Your task to perform on an android device: Play the last video I watched on Youtube Image 0: 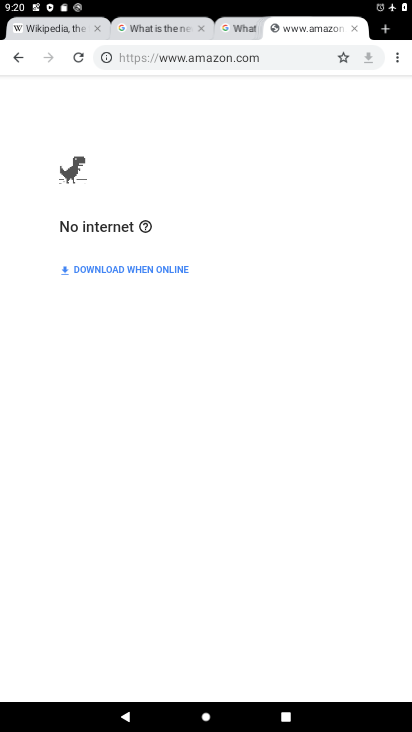
Step 0: press home button
Your task to perform on an android device: Play the last video I watched on Youtube Image 1: 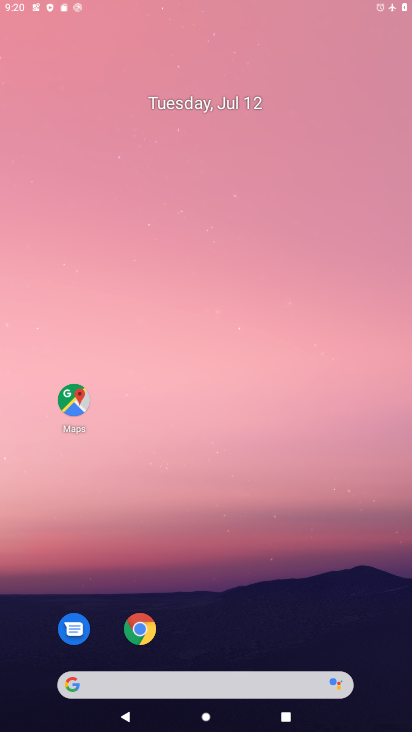
Step 1: drag from (279, 662) to (250, 269)
Your task to perform on an android device: Play the last video I watched on Youtube Image 2: 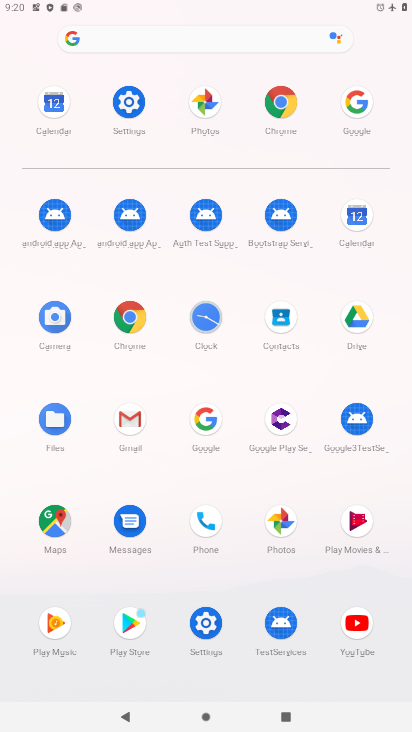
Step 2: click (361, 633)
Your task to perform on an android device: Play the last video I watched on Youtube Image 3: 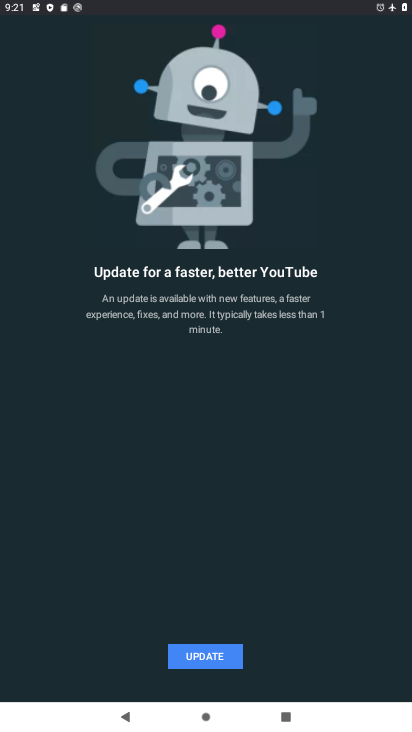
Step 3: task complete